Your task to perform on an android device: turn off picture-in-picture Image 0: 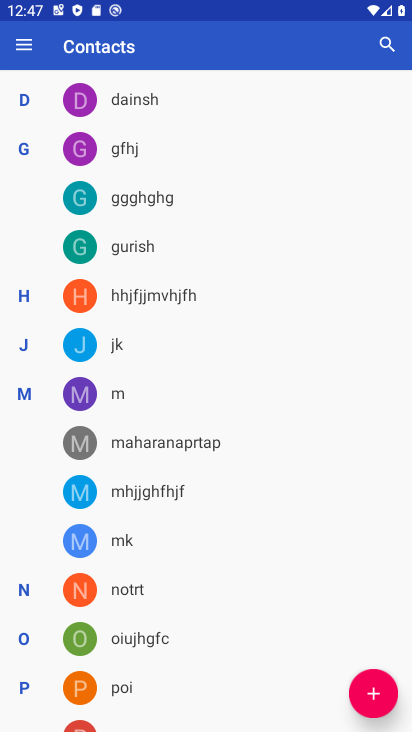
Step 0: press home button
Your task to perform on an android device: turn off picture-in-picture Image 1: 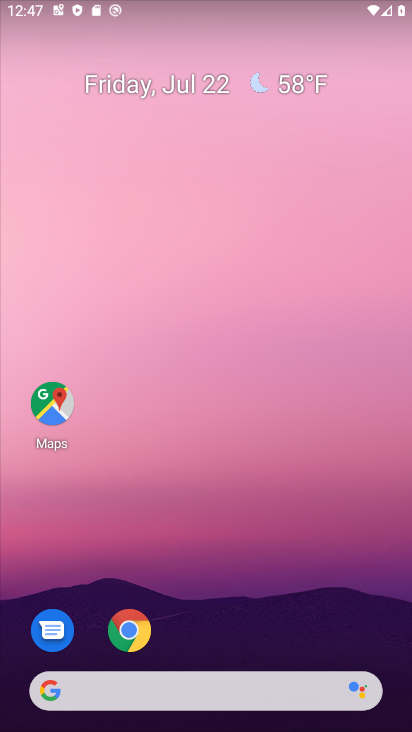
Step 1: click (109, 634)
Your task to perform on an android device: turn off picture-in-picture Image 2: 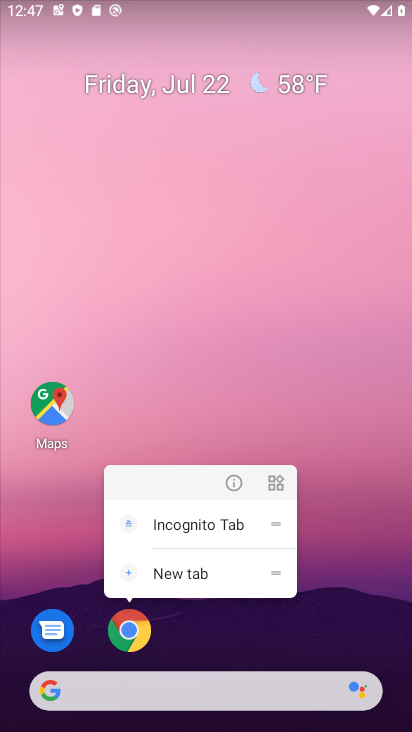
Step 2: click (240, 480)
Your task to perform on an android device: turn off picture-in-picture Image 3: 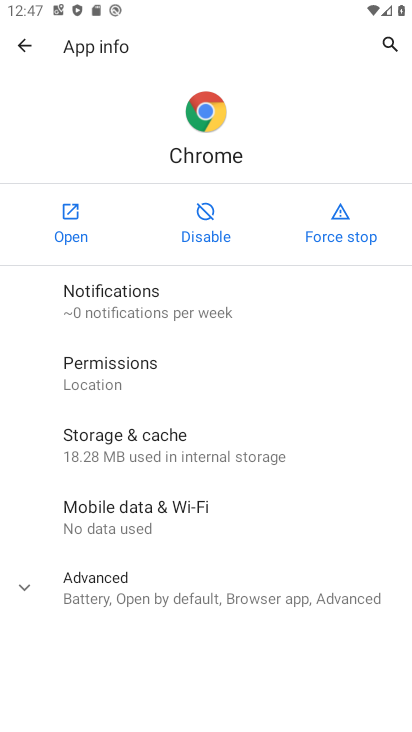
Step 3: click (185, 585)
Your task to perform on an android device: turn off picture-in-picture Image 4: 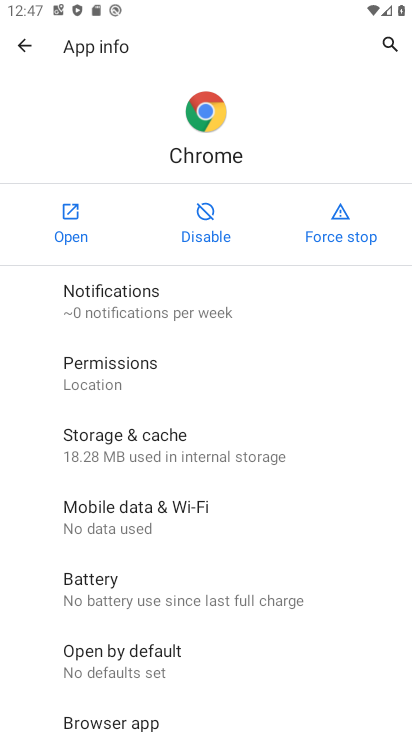
Step 4: drag from (270, 634) to (235, 439)
Your task to perform on an android device: turn off picture-in-picture Image 5: 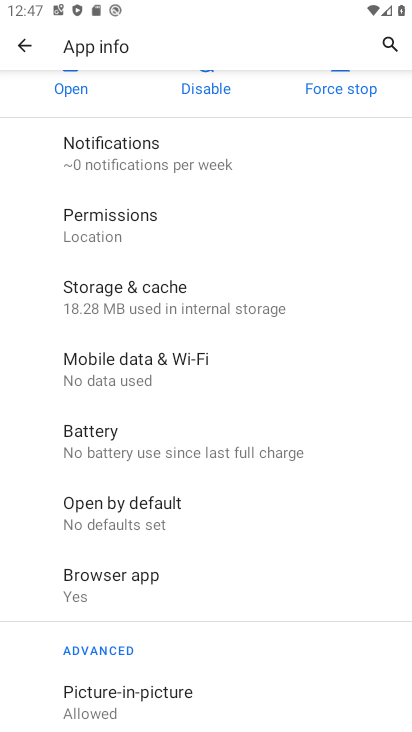
Step 5: click (154, 709)
Your task to perform on an android device: turn off picture-in-picture Image 6: 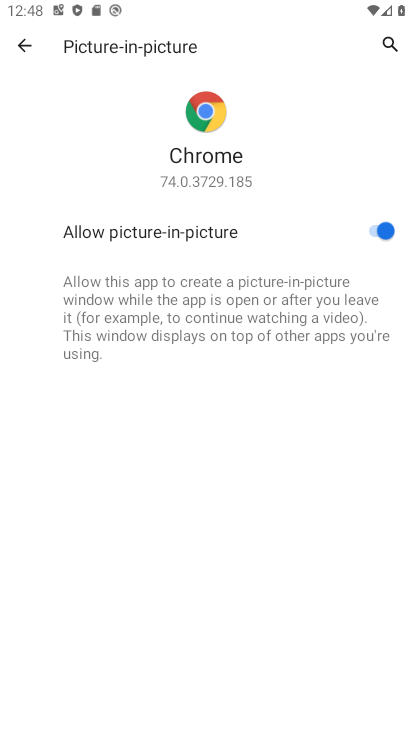
Step 6: click (301, 231)
Your task to perform on an android device: turn off picture-in-picture Image 7: 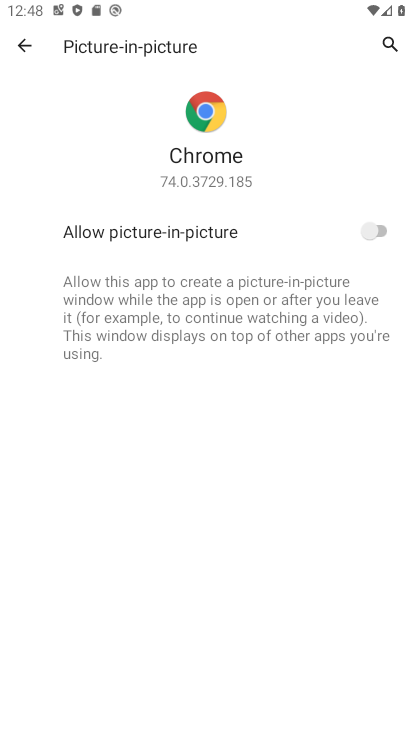
Step 7: task complete